Your task to perform on an android device: toggle data saver in the chrome app Image 0: 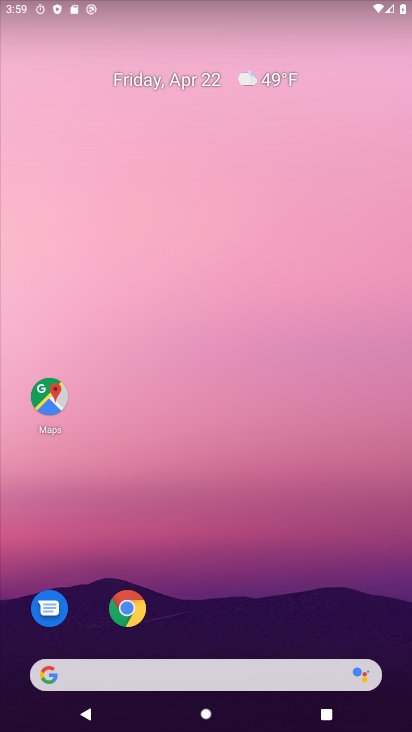
Step 0: click (124, 608)
Your task to perform on an android device: toggle data saver in the chrome app Image 1: 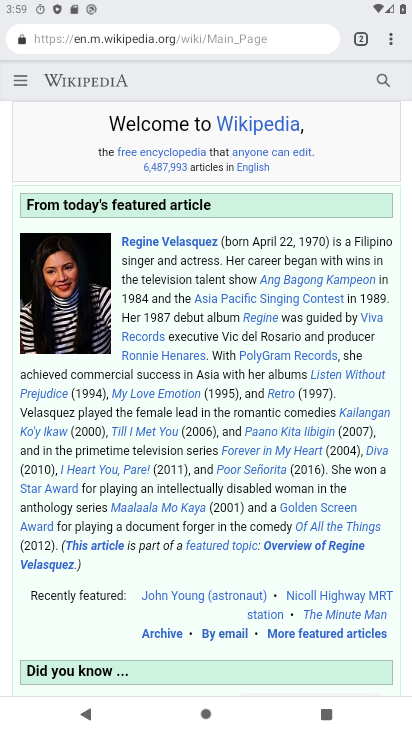
Step 1: click (393, 32)
Your task to perform on an android device: toggle data saver in the chrome app Image 2: 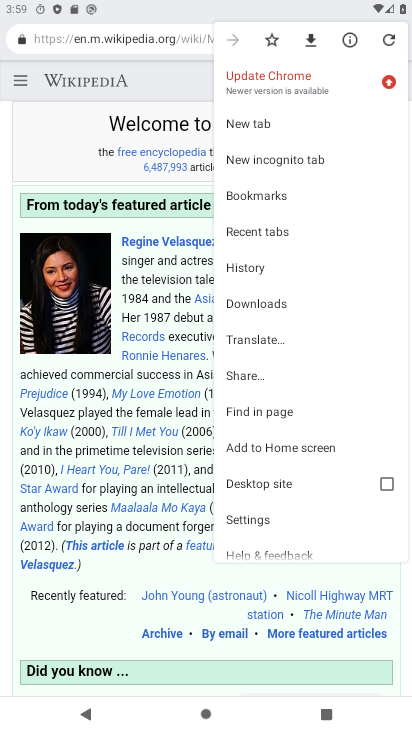
Step 2: click (256, 518)
Your task to perform on an android device: toggle data saver in the chrome app Image 3: 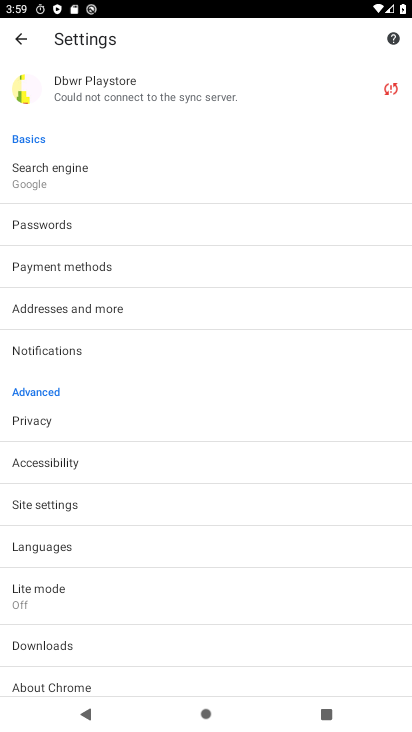
Step 3: click (90, 595)
Your task to perform on an android device: toggle data saver in the chrome app Image 4: 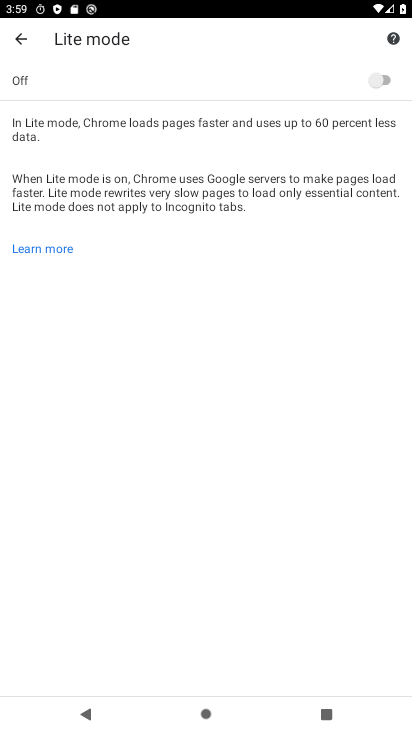
Step 4: click (385, 75)
Your task to perform on an android device: toggle data saver in the chrome app Image 5: 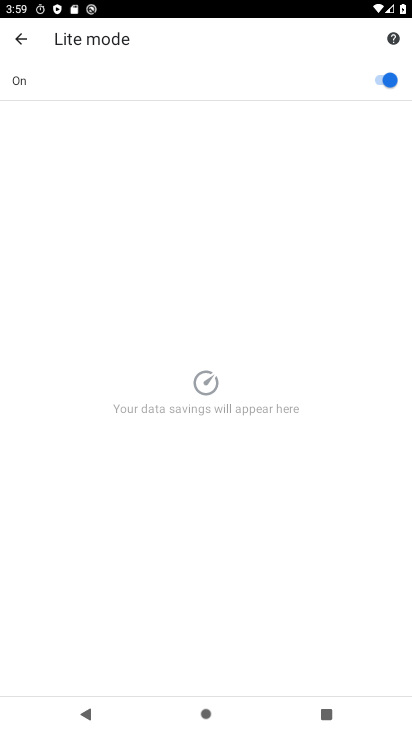
Step 5: task complete